Your task to perform on an android device: see tabs open on other devices in the chrome app Image 0: 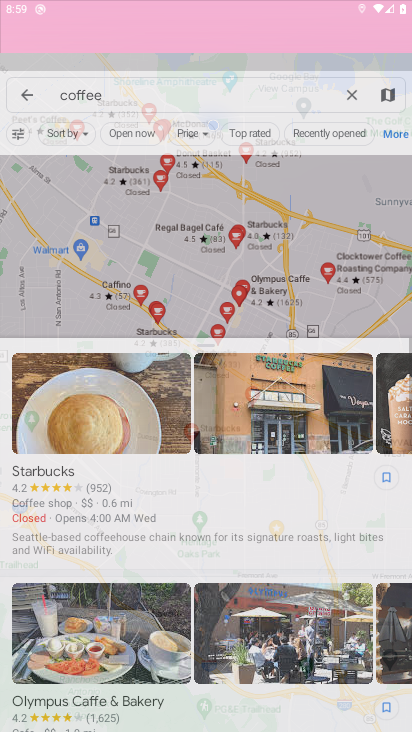
Step 0: press home button
Your task to perform on an android device: see tabs open on other devices in the chrome app Image 1: 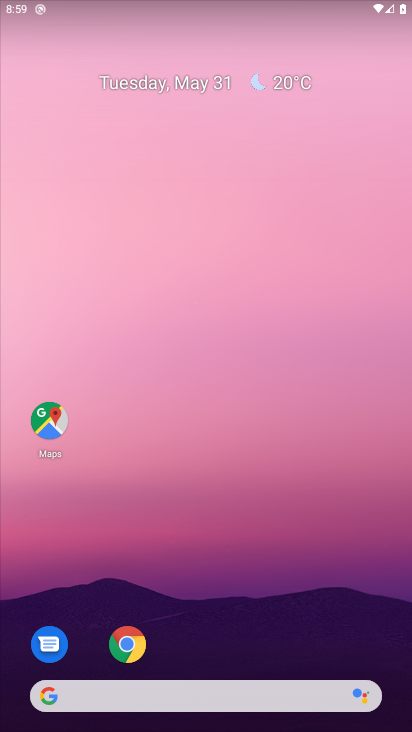
Step 1: click (124, 640)
Your task to perform on an android device: see tabs open on other devices in the chrome app Image 2: 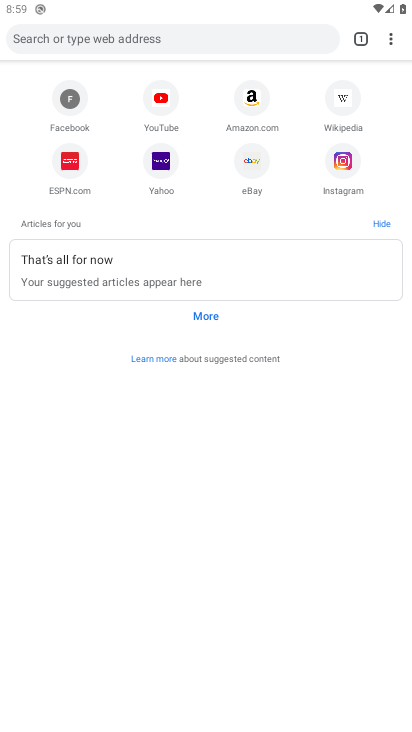
Step 2: click (389, 32)
Your task to perform on an android device: see tabs open on other devices in the chrome app Image 3: 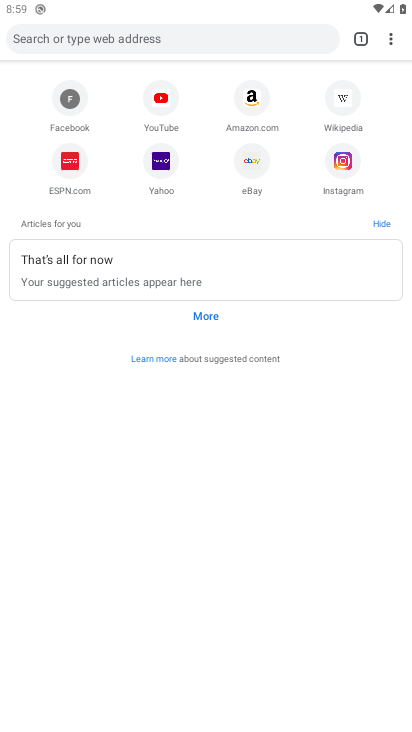
Step 3: click (392, 38)
Your task to perform on an android device: see tabs open on other devices in the chrome app Image 4: 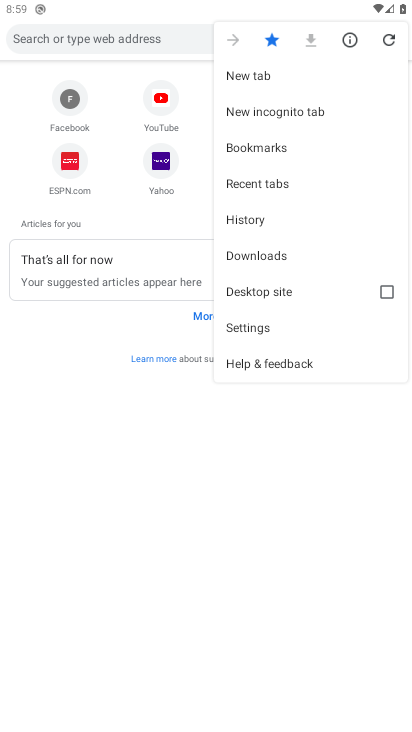
Step 4: click (290, 181)
Your task to perform on an android device: see tabs open on other devices in the chrome app Image 5: 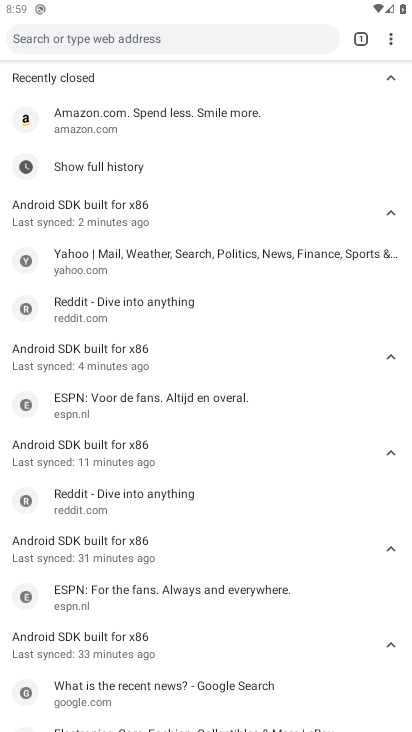
Step 5: task complete